Your task to perform on an android device: turn on bluetooth scan Image 0: 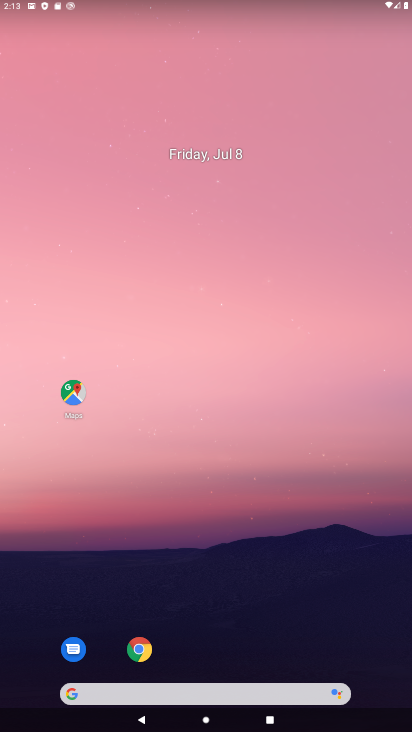
Step 0: drag from (377, 613) to (296, 117)
Your task to perform on an android device: turn on bluetooth scan Image 1: 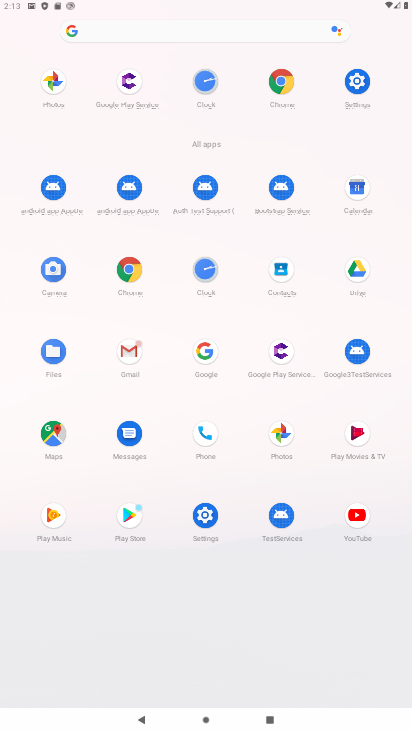
Step 1: click (363, 87)
Your task to perform on an android device: turn on bluetooth scan Image 2: 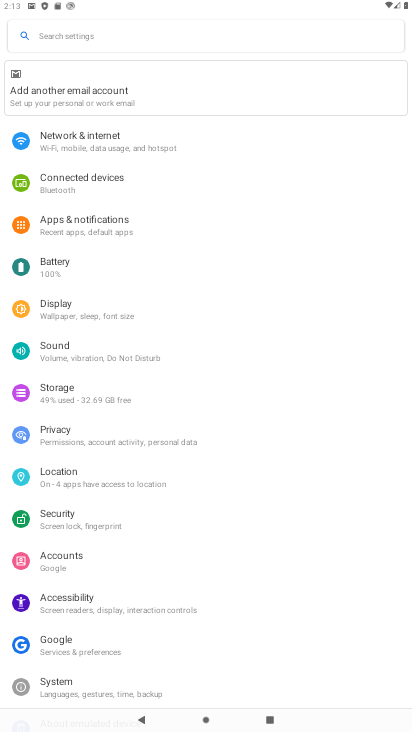
Step 2: click (48, 480)
Your task to perform on an android device: turn on bluetooth scan Image 3: 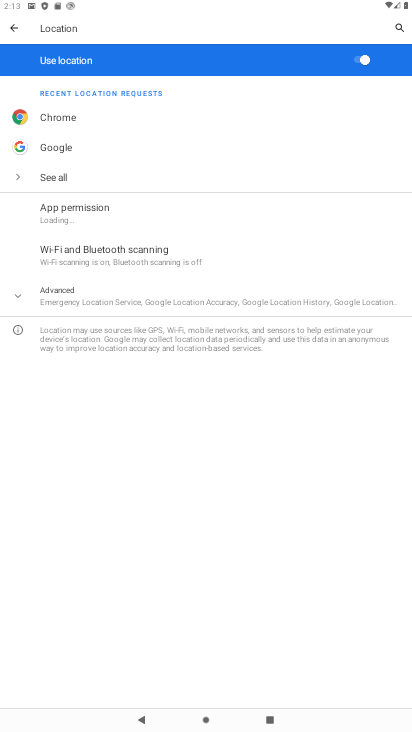
Step 3: click (99, 304)
Your task to perform on an android device: turn on bluetooth scan Image 4: 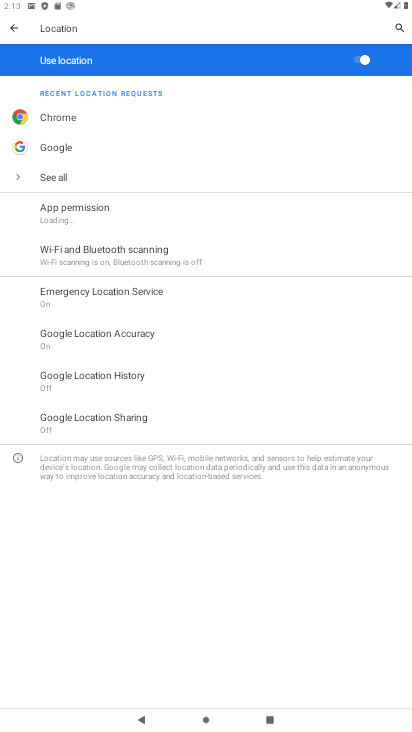
Step 4: click (113, 267)
Your task to perform on an android device: turn on bluetooth scan Image 5: 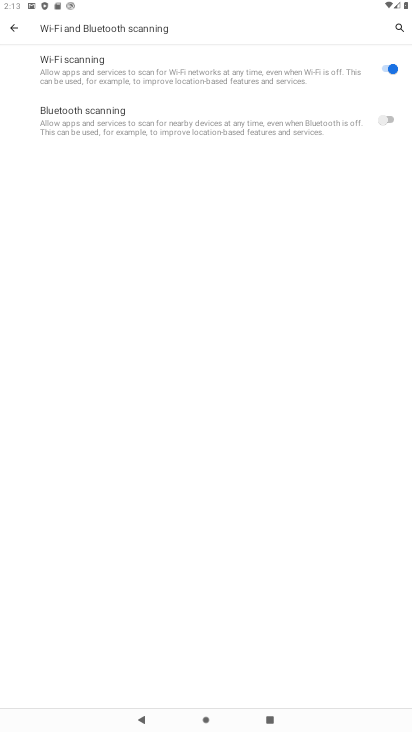
Step 5: click (389, 110)
Your task to perform on an android device: turn on bluetooth scan Image 6: 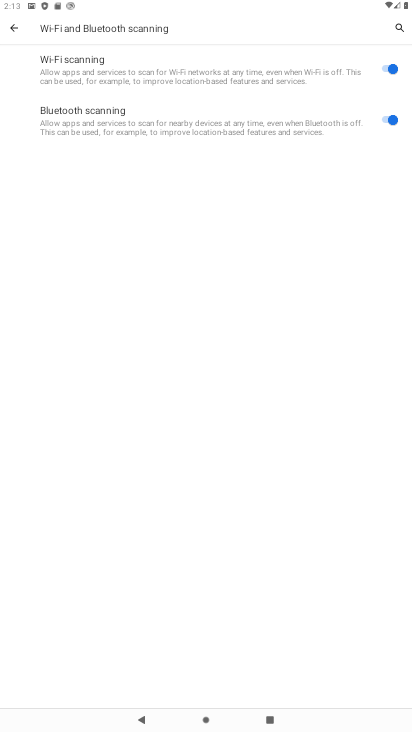
Step 6: task complete